Your task to perform on an android device: Open Maps and search for coffee Image 0: 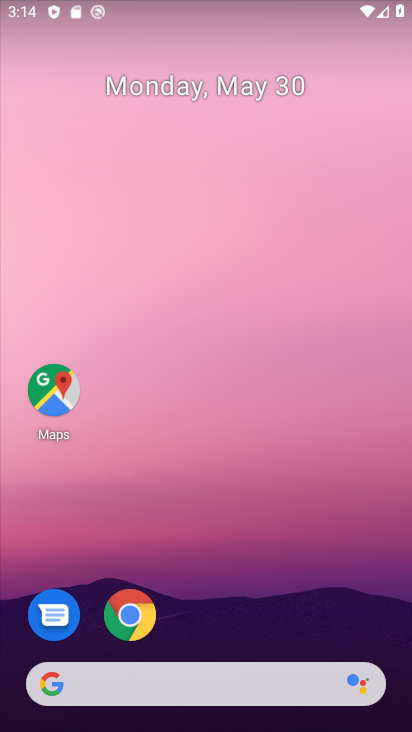
Step 0: click (49, 413)
Your task to perform on an android device: Open Maps and search for coffee Image 1: 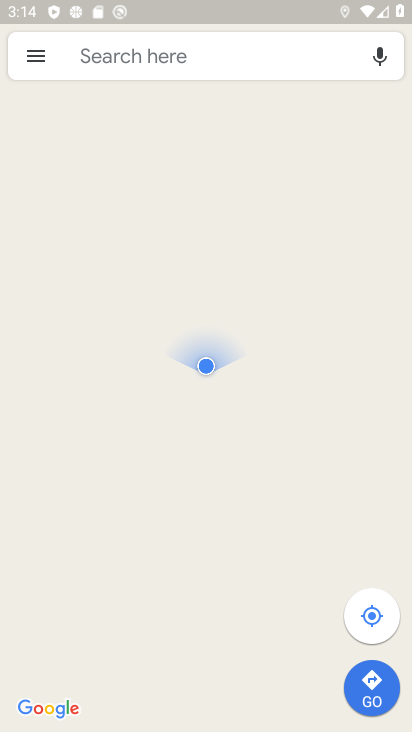
Step 1: click (225, 49)
Your task to perform on an android device: Open Maps and search for coffee Image 2: 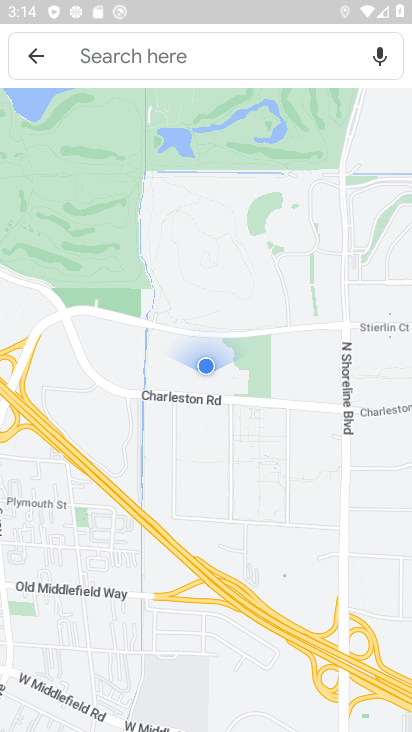
Step 2: click (225, 49)
Your task to perform on an android device: Open Maps and search for coffee Image 3: 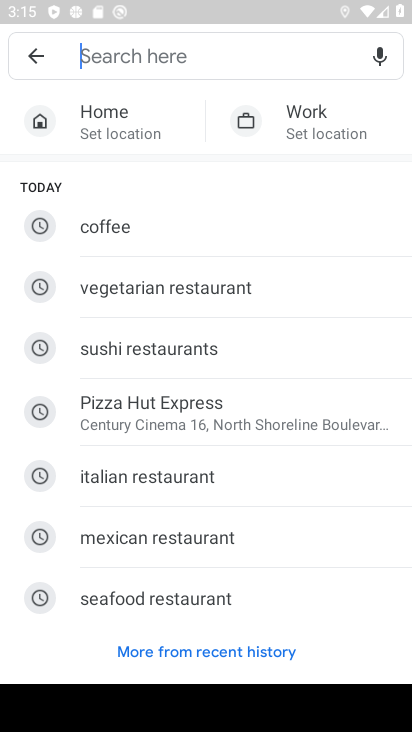
Step 3: click (131, 216)
Your task to perform on an android device: Open Maps and search for coffee Image 4: 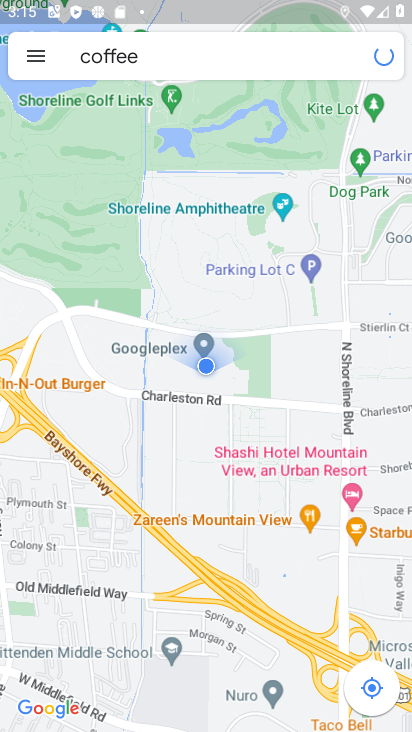
Step 4: task complete